Your task to perform on an android device: toggle priority inbox in the gmail app Image 0: 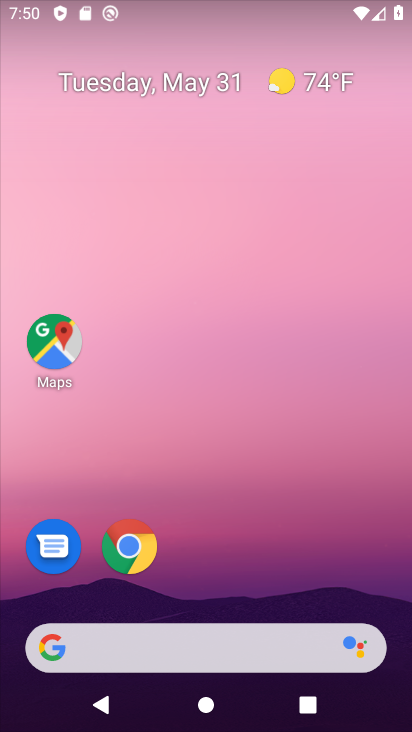
Step 0: drag from (222, 561) to (330, 79)
Your task to perform on an android device: toggle priority inbox in the gmail app Image 1: 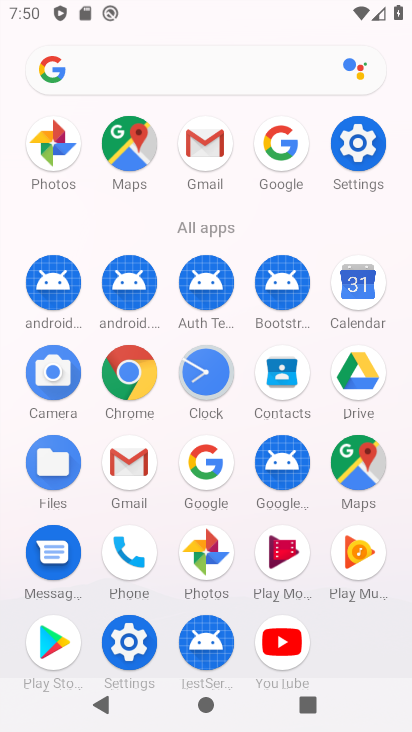
Step 1: click (126, 459)
Your task to perform on an android device: toggle priority inbox in the gmail app Image 2: 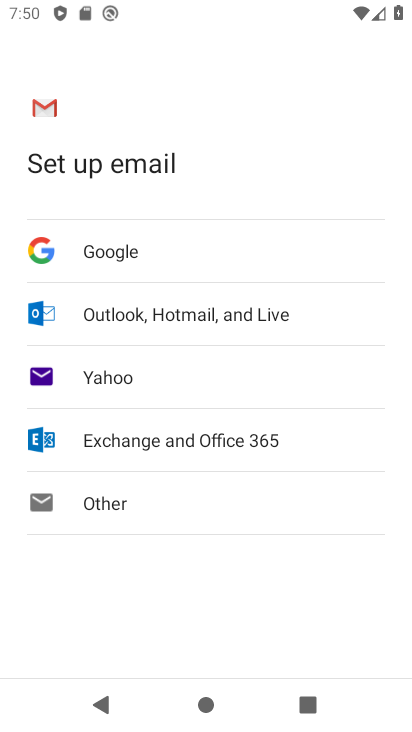
Step 2: press back button
Your task to perform on an android device: toggle priority inbox in the gmail app Image 3: 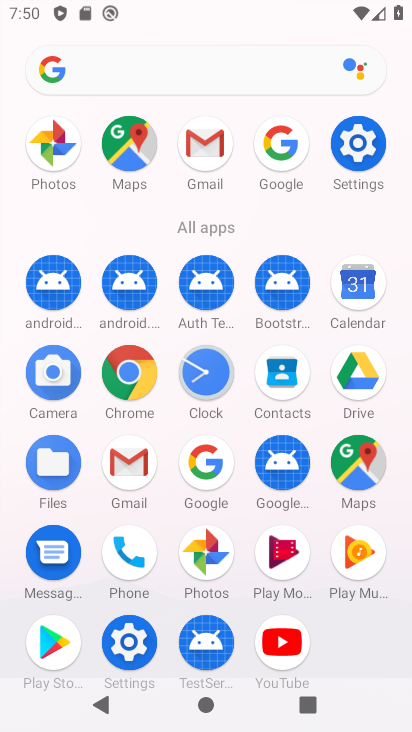
Step 3: click (133, 465)
Your task to perform on an android device: toggle priority inbox in the gmail app Image 4: 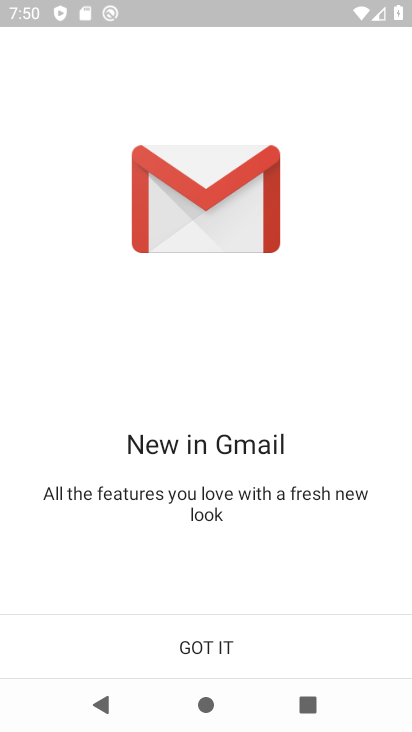
Step 4: click (201, 650)
Your task to perform on an android device: toggle priority inbox in the gmail app Image 5: 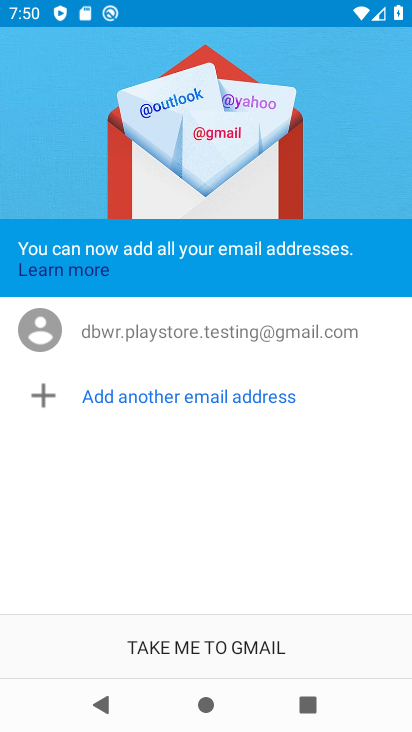
Step 5: click (201, 650)
Your task to perform on an android device: toggle priority inbox in the gmail app Image 6: 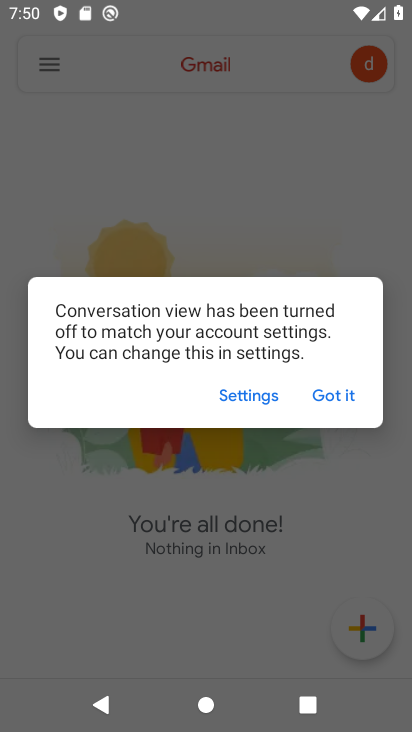
Step 6: click (247, 398)
Your task to perform on an android device: toggle priority inbox in the gmail app Image 7: 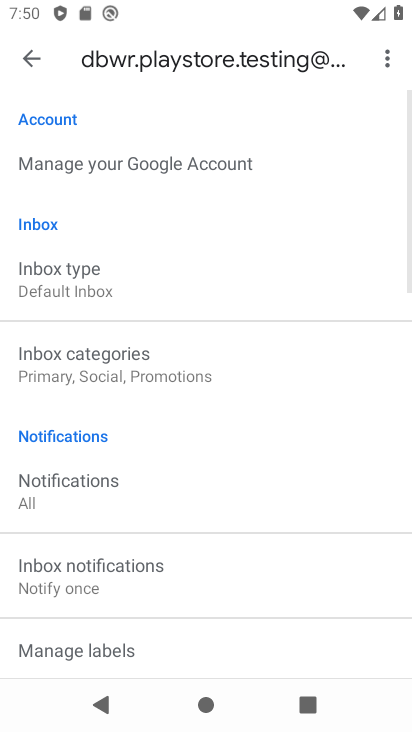
Step 7: click (94, 291)
Your task to perform on an android device: toggle priority inbox in the gmail app Image 8: 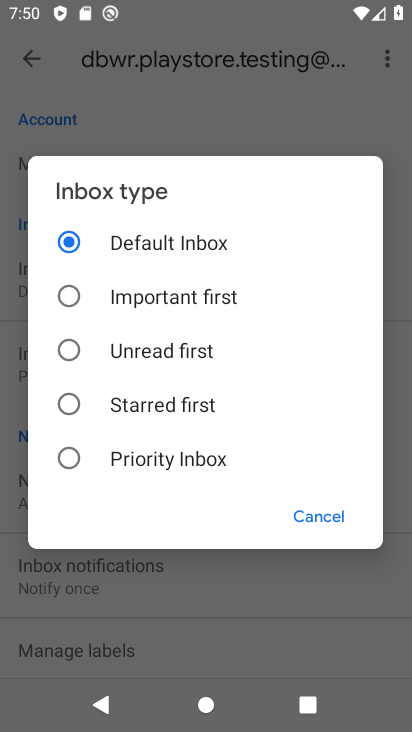
Step 8: click (72, 457)
Your task to perform on an android device: toggle priority inbox in the gmail app Image 9: 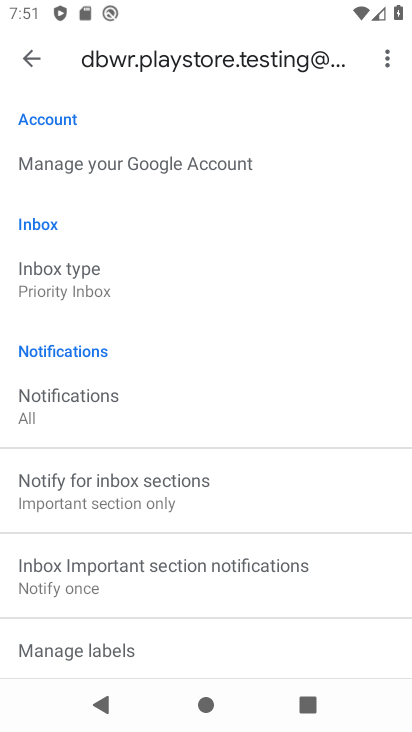
Step 9: task complete